Your task to perform on an android device: Open calendar and show me the fourth week of next month Image 0: 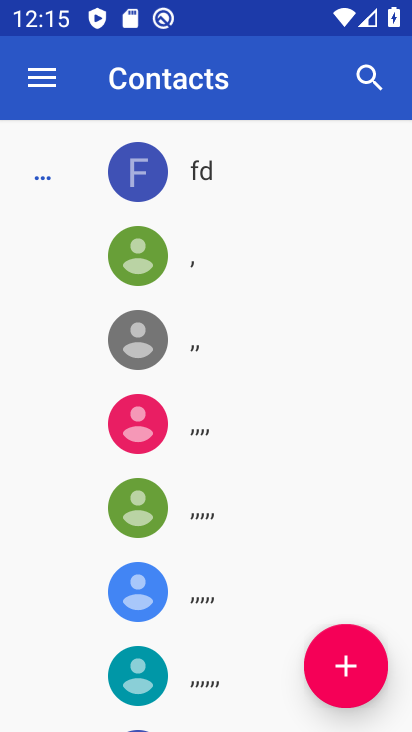
Step 0: press home button
Your task to perform on an android device: Open calendar and show me the fourth week of next month Image 1: 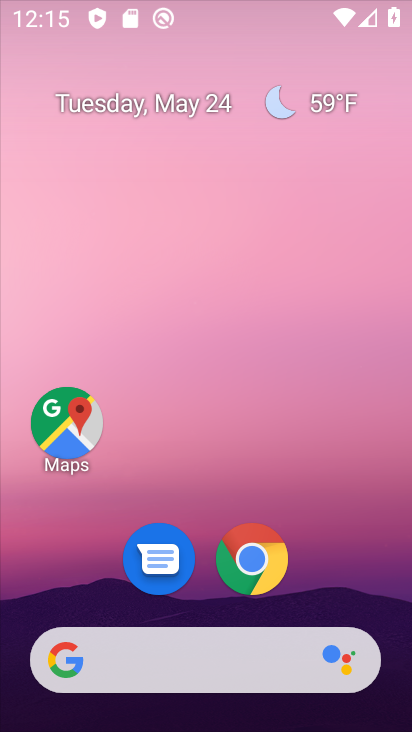
Step 1: drag from (399, 638) to (265, 55)
Your task to perform on an android device: Open calendar and show me the fourth week of next month Image 2: 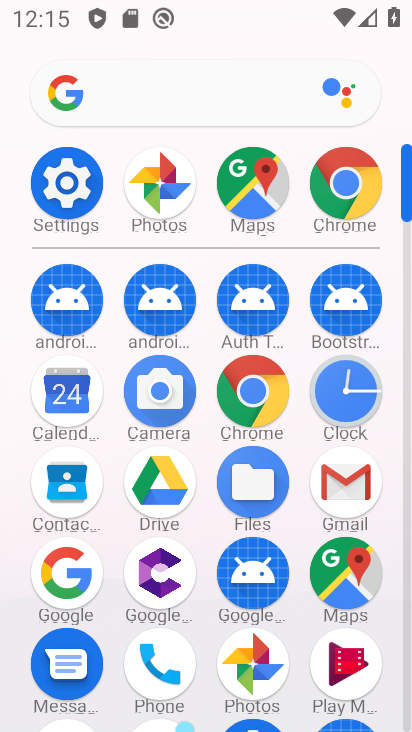
Step 2: click (61, 405)
Your task to perform on an android device: Open calendar and show me the fourth week of next month Image 3: 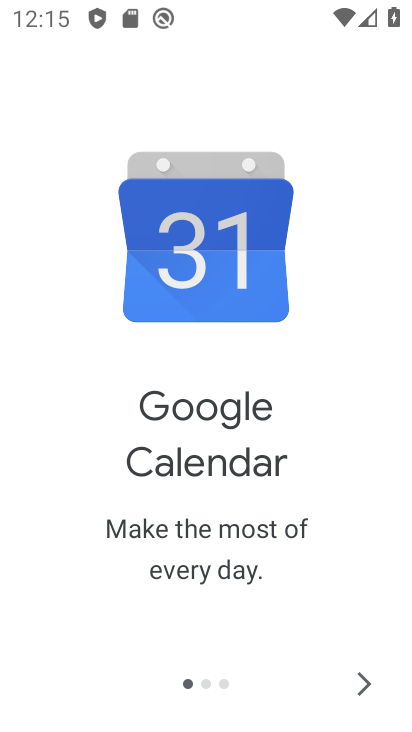
Step 3: click (366, 675)
Your task to perform on an android device: Open calendar and show me the fourth week of next month Image 4: 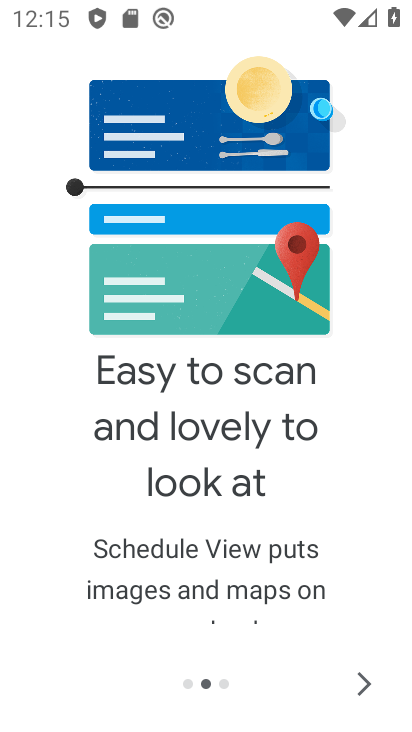
Step 4: click (366, 675)
Your task to perform on an android device: Open calendar and show me the fourth week of next month Image 5: 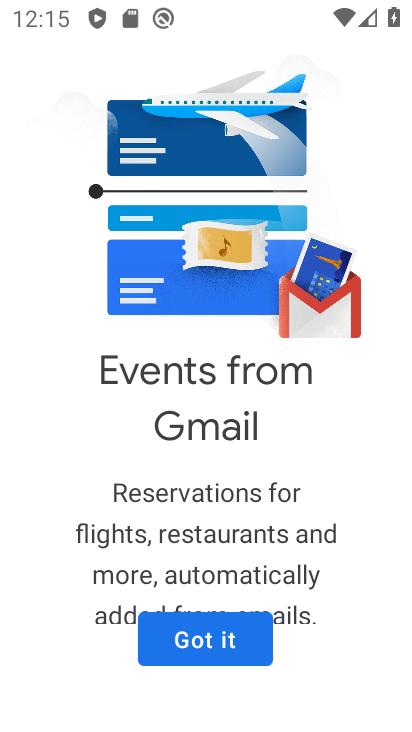
Step 5: click (366, 675)
Your task to perform on an android device: Open calendar and show me the fourth week of next month Image 6: 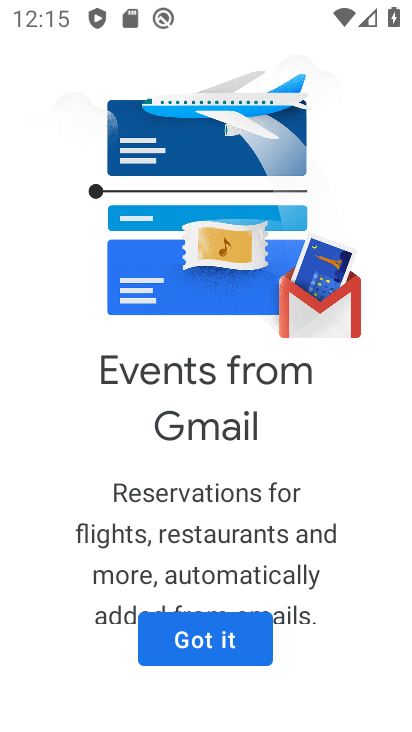
Step 6: click (211, 621)
Your task to perform on an android device: Open calendar and show me the fourth week of next month Image 7: 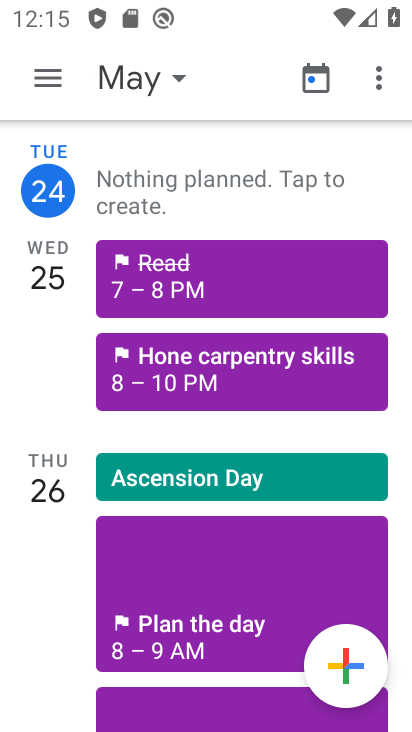
Step 7: click (118, 86)
Your task to perform on an android device: Open calendar and show me the fourth week of next month Image 8: 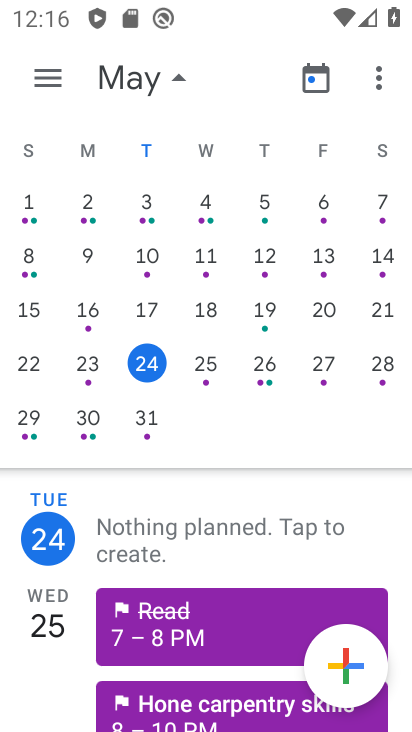
Step 8: drag from (357, 346) to (9, 284)
Your task to perform on an android device: Open calendar and show me the fourth week of next month Image 9: 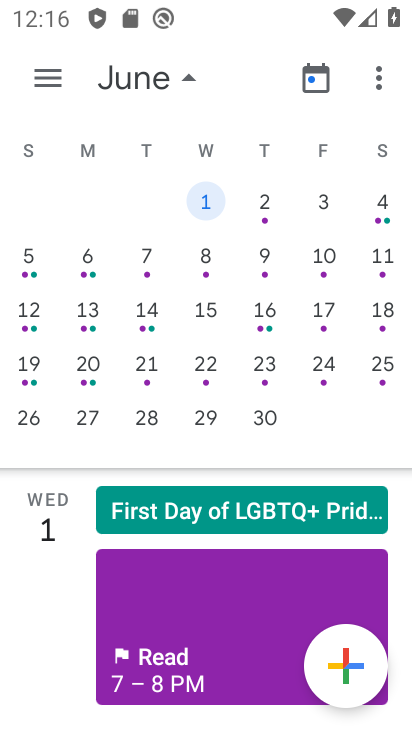
Step 9: click (101, 414)
Your task to perform on an android device: Open calendar and show me the fourth week of next month Image 10: 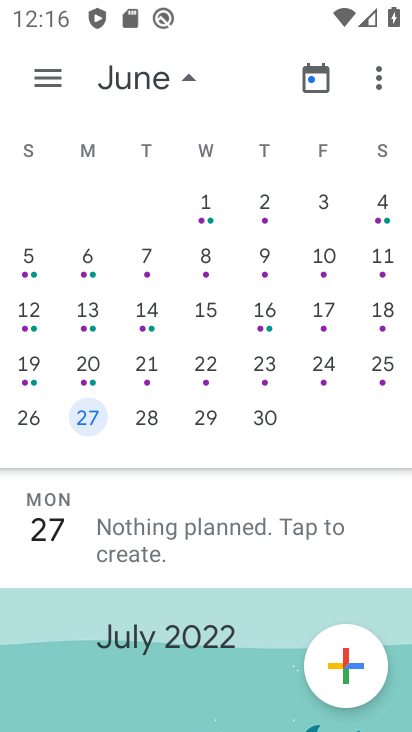
Step 10: task complete